Your task to perform on an android device: open the mobile data screen to see how much data has been used Image 0: 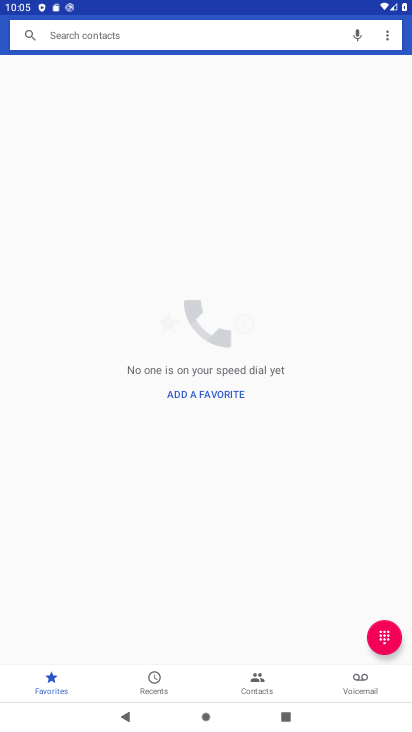
Step 0: press home button
Your task to perform on an android device: open the mobile data screen to see how much data has been used Image 1: 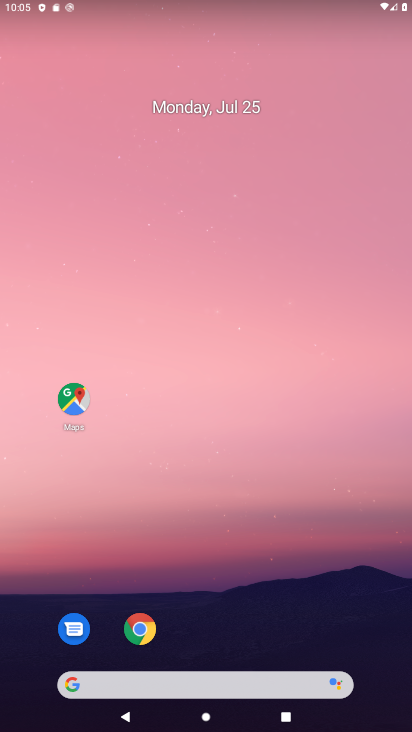
Step 1: drag from (238, 664) to (248, 15)
Your task to perform on an android device: open the mobile data screen to see how much data has been used Image 2: 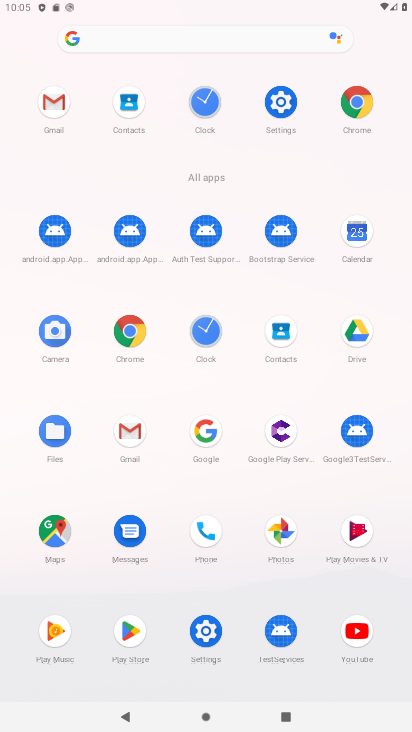
Step 2: click (278, 110)
Your task to perform on an android device: open the mobile data screen to see how much data has been used Image 3: 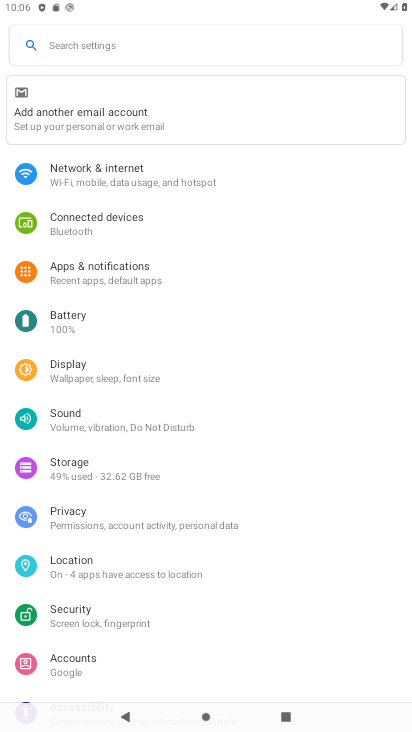
Step 3: click (69, 177)
Your task to perform on an android device: open the mobile data screen to see how much data has been used Image 4: 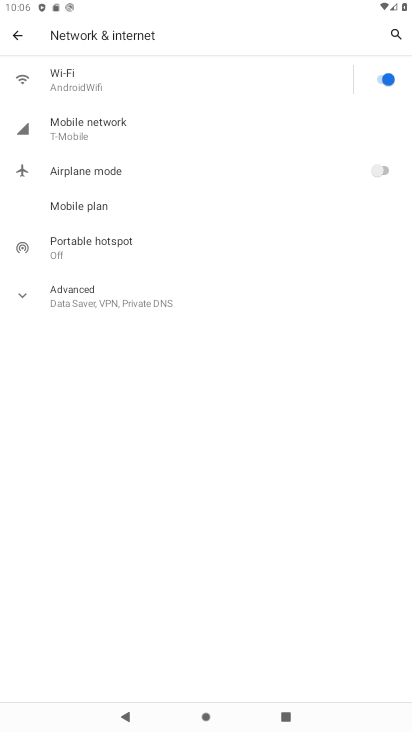
Step 4: click (67, 131)
Your task to perform on an android device: open the mobile data screen to see how much data has been used Image 5: 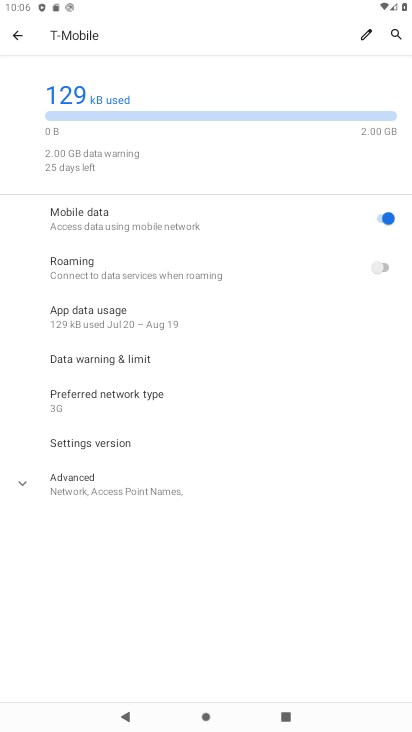
Step 5: click (67, 327)
Your task to perform on an android device: open the mobile data screen to see how much data has been used Image 6: 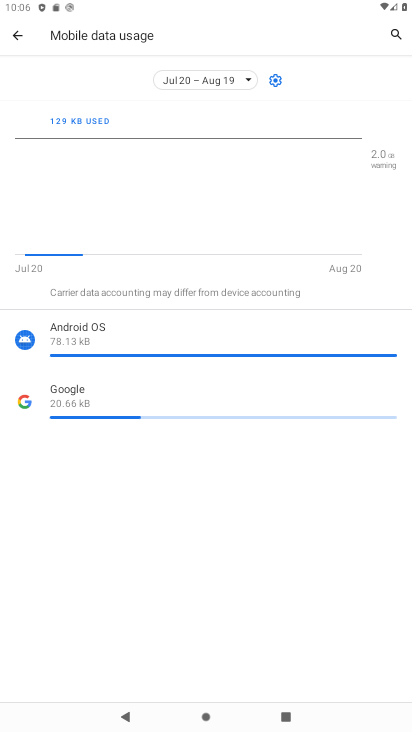
Step 6: task complete